Your task to perform on an android device: toggle airplane mode Image 0: 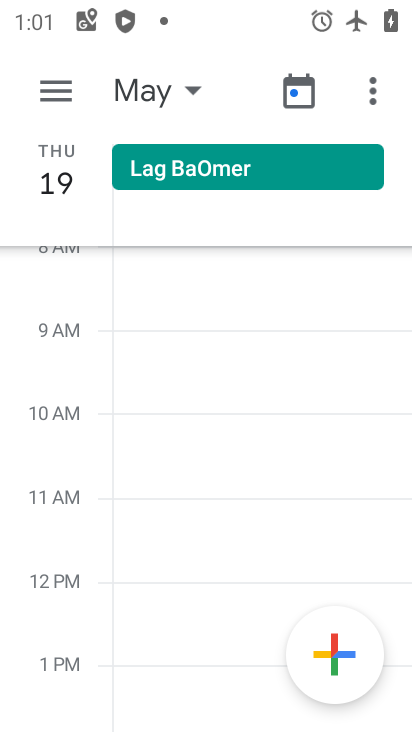
Step 0: task impossible